Your task to perform on an android device: toggle translation in the chrome app Image 0: 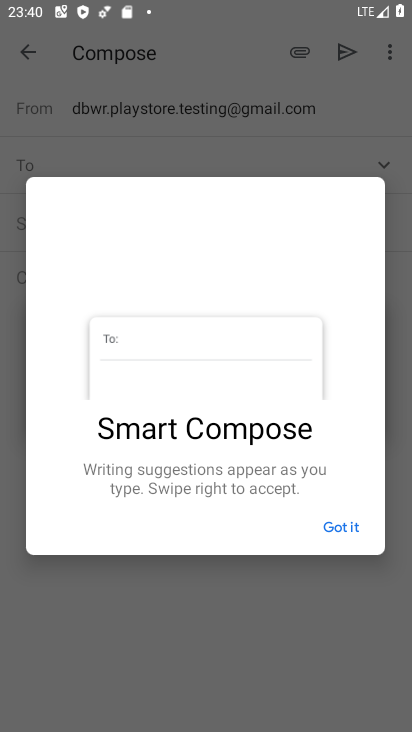
Step 0: press home button
Your task to perform on an android device: toggle translation in the chrome app Image 1: 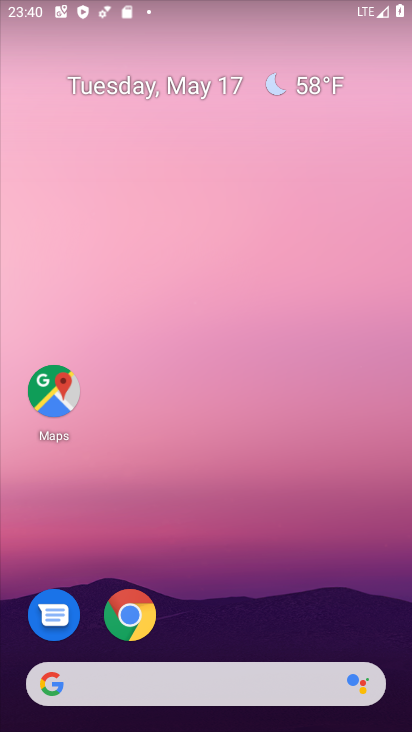
Step 1: click (138, 617)
Your task to perform on an android device: toggle translation in the chrome app Image 2: 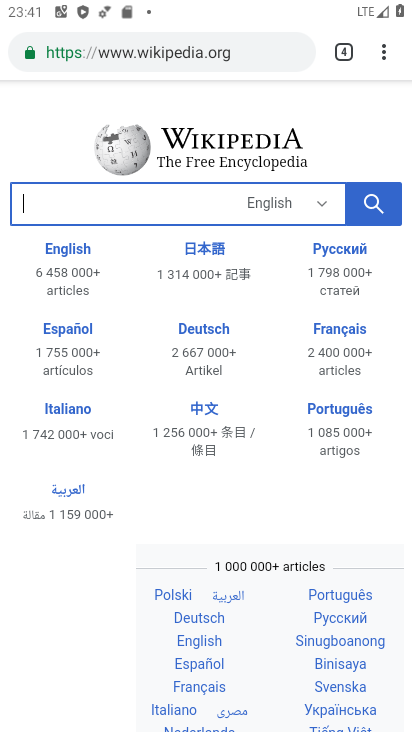
Step 2: drag from (381, 50) to (217, 616)
Your task to perform on an android device: toggle translation in the chrome app Image 3: 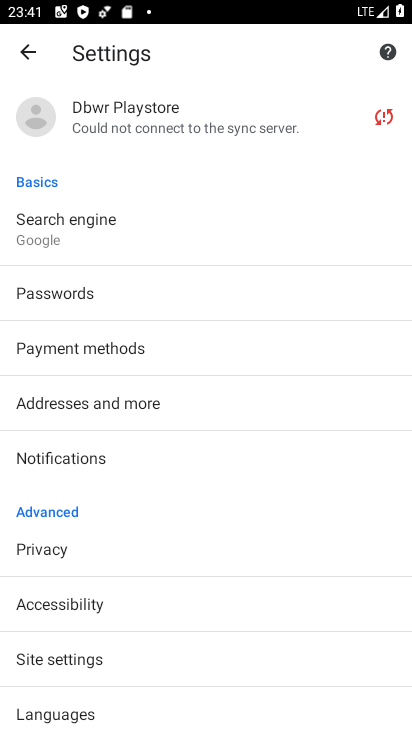
Step 3: drag from (113, 679) to (117, 496)
Your task to perform on an android device: toggle translation in the chrome app Image 4: 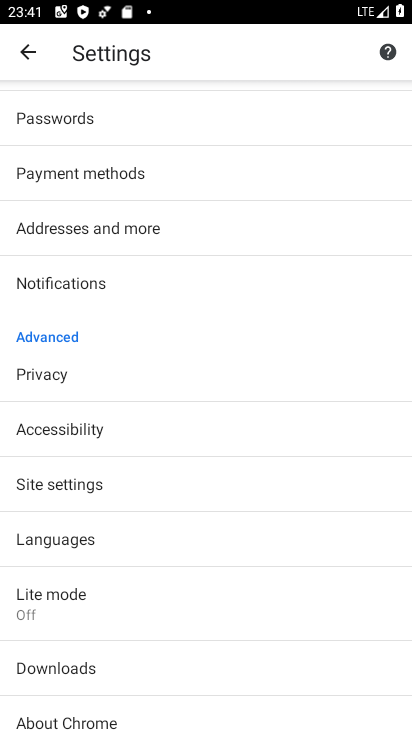
Step 4: click (101, 528)
Your task to perform on an android device: toggle translation in the chrome app Image 5: 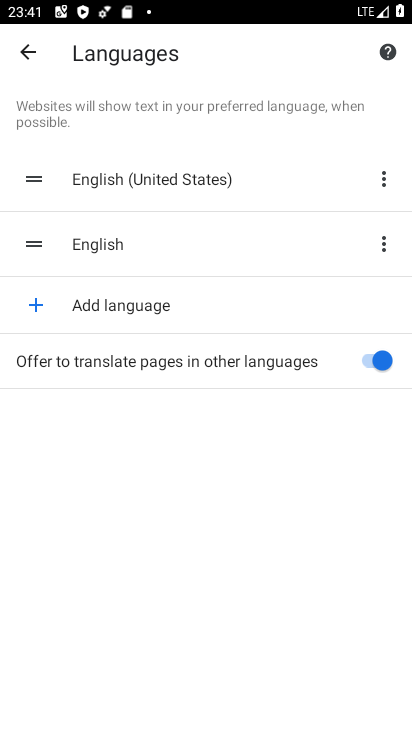
Step 5: click (365, 356)
Your task to perform on an android device: toggle translation in the chrome app Image 6: 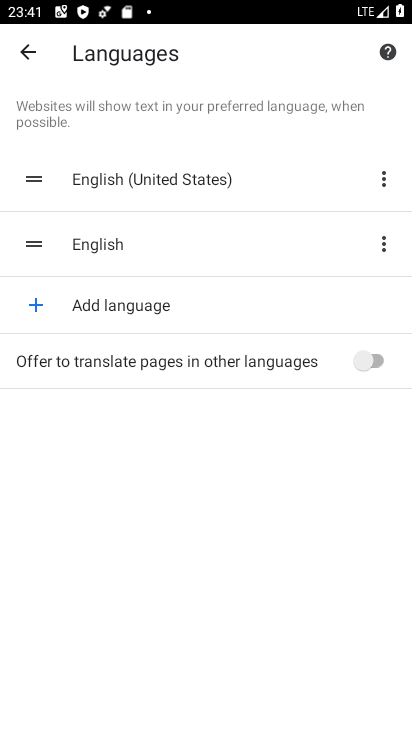
Step 6: task complete